Your task to perform on an android device: Go to Wikipedia Image 0: 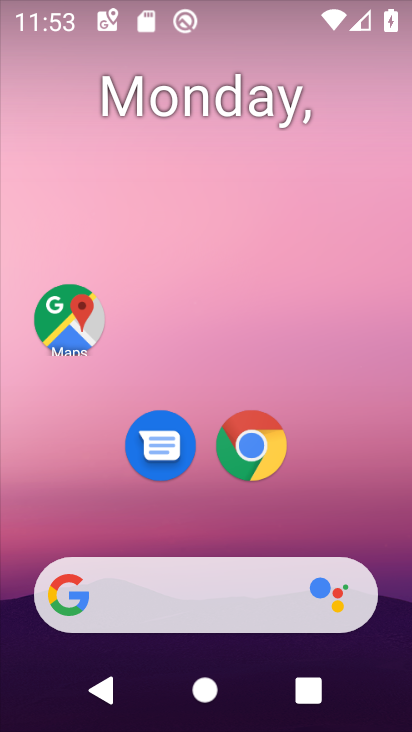
Step 0: click (255, 438)
Your task to perform on an android device: Go to Wikipedia Image 1: 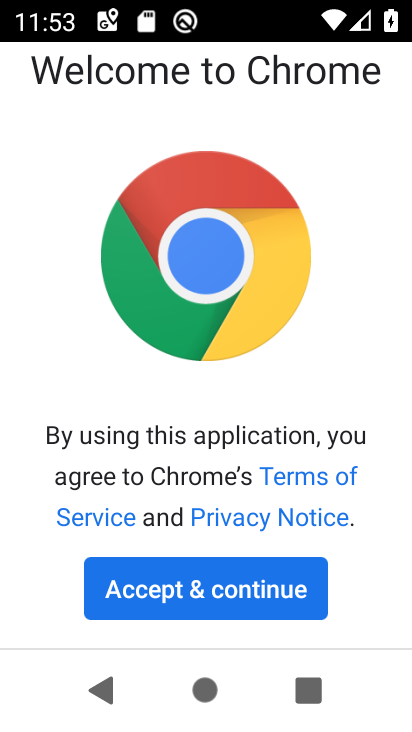
Step 1: click (193, 582)
Your task to perform on an android device: Go to Wikipedia Image 2: 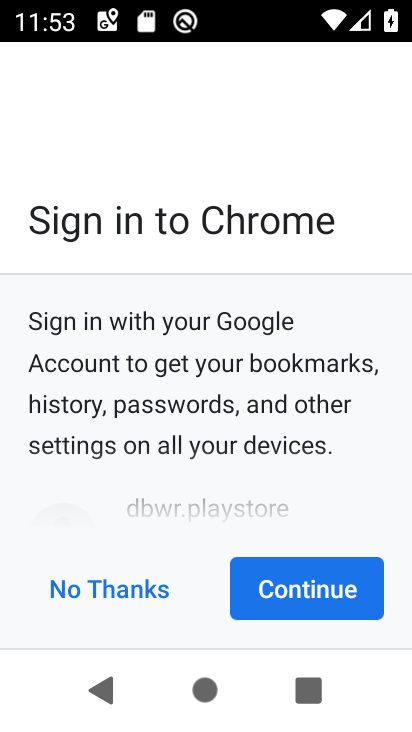
Step 2: click (282, 599)
Your task to perform on an android device: Go to Wikipedia Image 3: 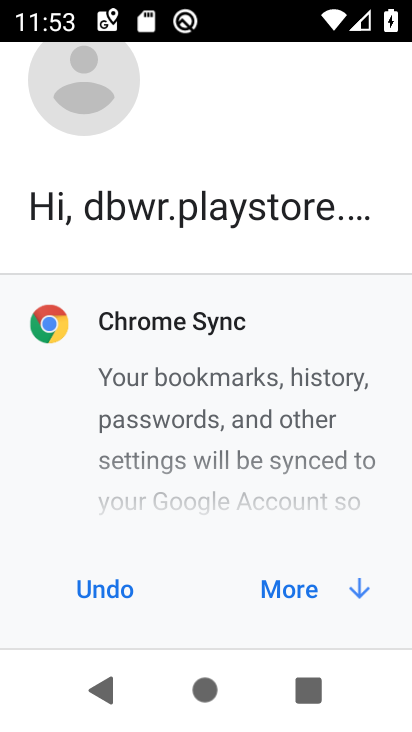
Step 3: click (305, 592)
Your task to perform on an android device: Go to Wikipedia Image 4: 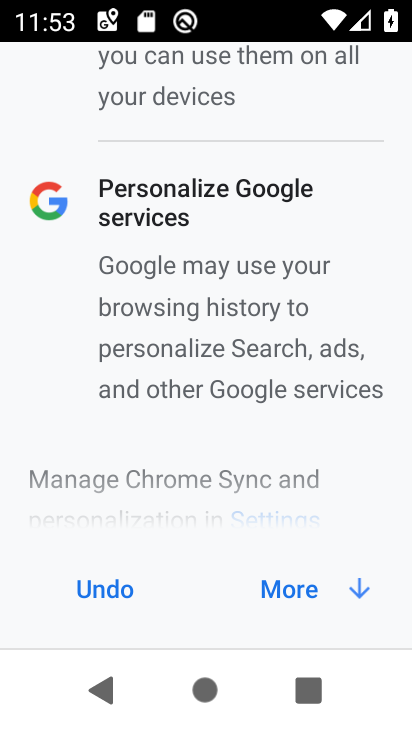
Step 4: click (355, 589)
Your task to perform on an android device: Go to Wikipedia Image 5: 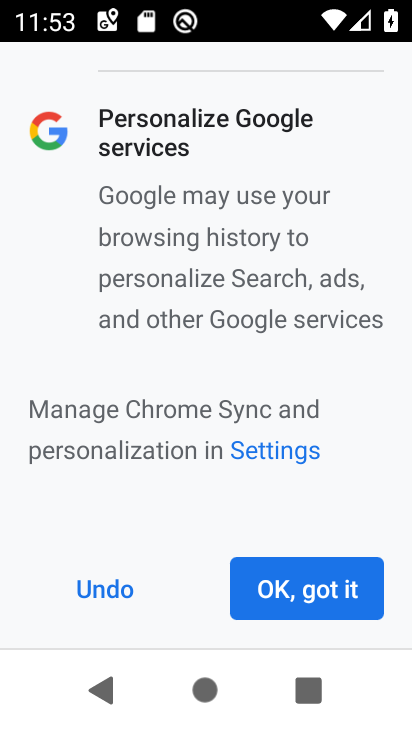
Step 5: click (309, 585)
Your task to perform on an android device: Go to Wikipedia Image 6: 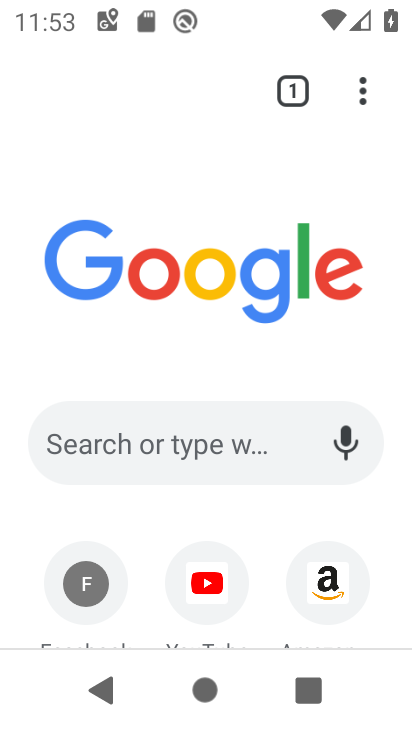
Step 6: drag from (267, 514) to (224, 186)
Your task to perform on an android device: Go to Wikipedia Image 7: 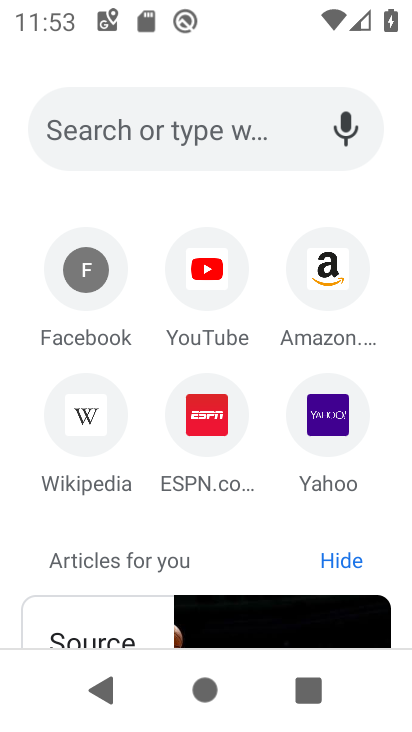
Step 7: click (87, 409)
Your task to perform on an android device: Go to Wikipedia Image 8: 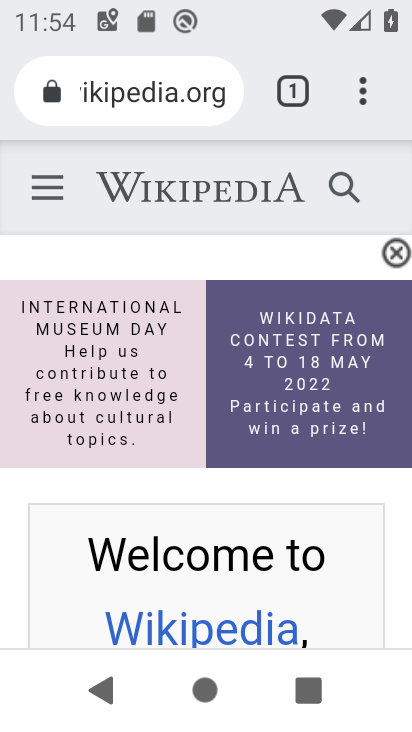
Step 8: task complete